Your task to perform on an android device: set the stopwatch Image 0: 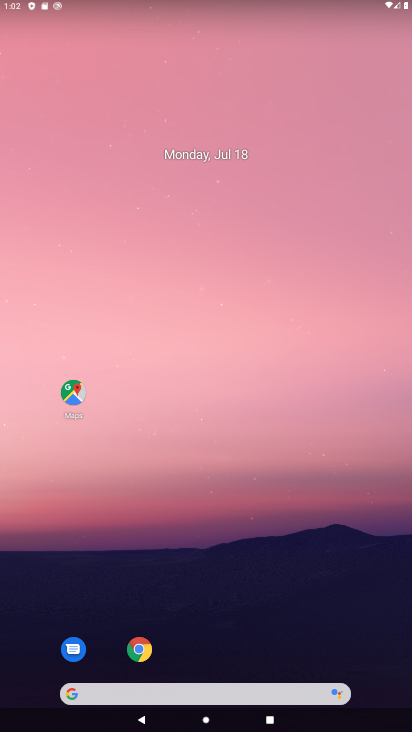
Step 0: drag from (186, 651) to (128, 107)
Your task to perform on an android device: set the stopwatch Image 1: 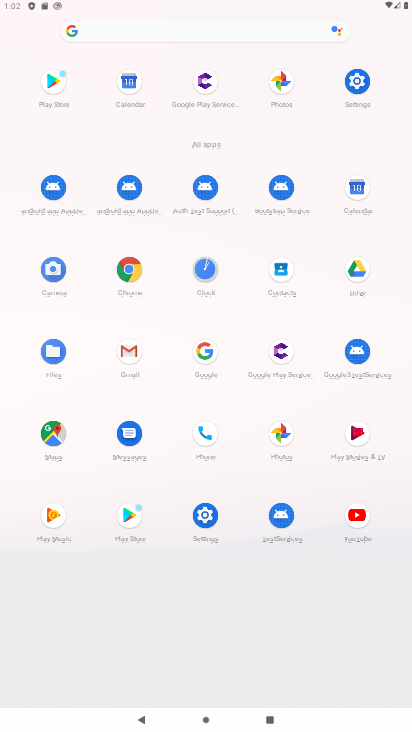
Step 1: click (198, 269)
Your task to perform on an android device: set the stopwatch Image 2: 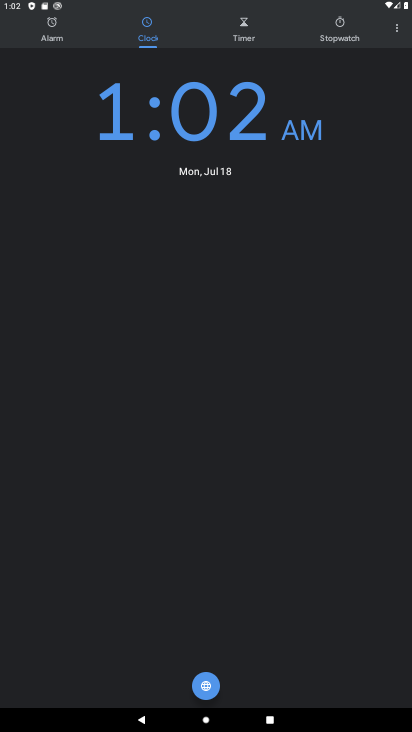
Step 2: click (332, 24)
Your task to perform on an android device: set the stopwatch Image 3: 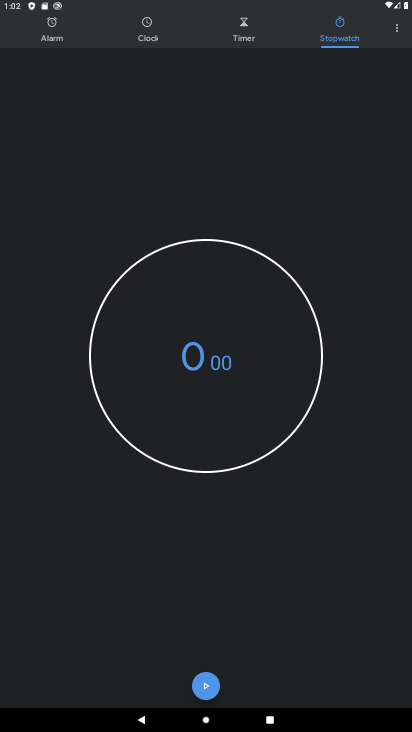
Step 3: click (205, 689)
Your task to perform on an android device: set the stopwatch Image 4: 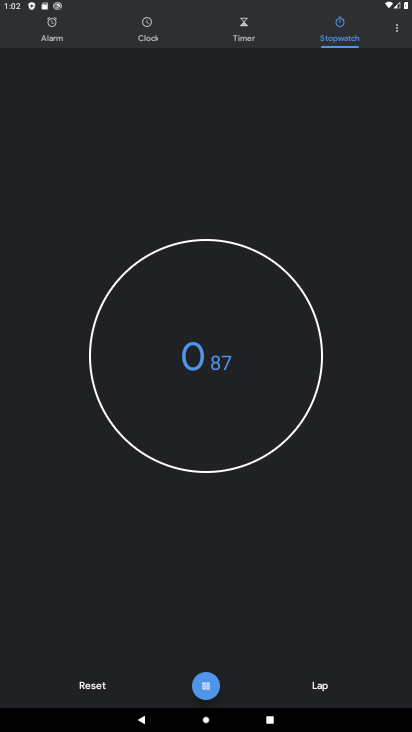
Step 4: click (206, 688)
Your task to perform on an android device: set the stopwatch Image 5: 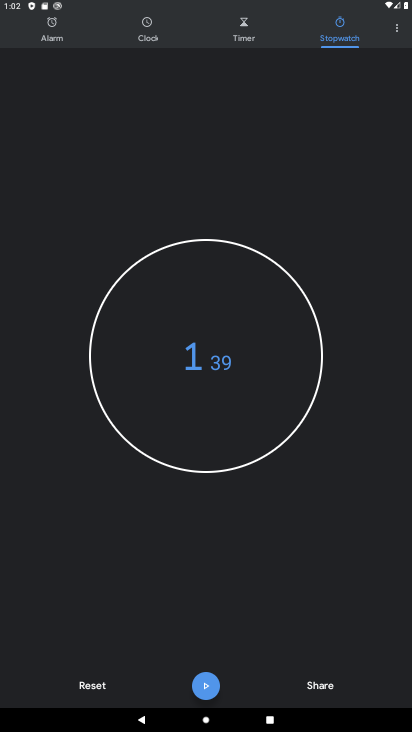
Step 5: task complete